Your task to perform on an android device: Open eBay Image 0: 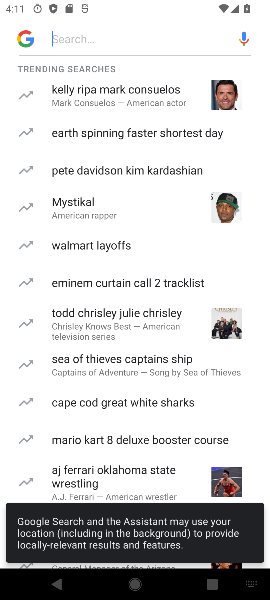
Step 0: press back button
Your task to perform on an android device: Open eBay Image 1: 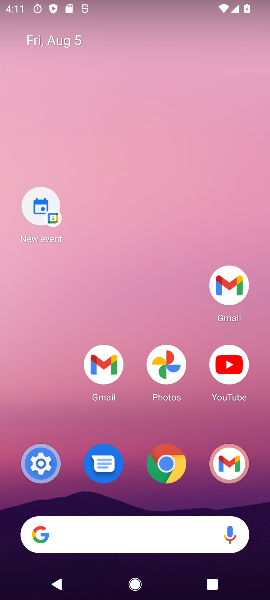
Step 1: drag from (175, 567) to (110, 225)
Your task to perform on an android device: Open eBay Image 2: 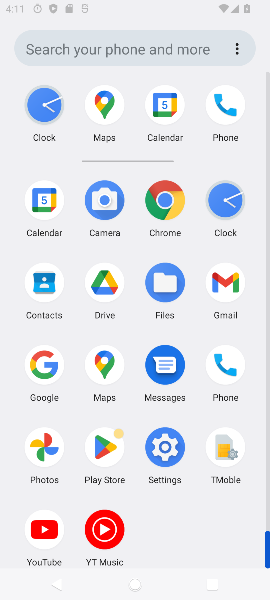
Step 2: drag from (157, 495) to (62, 145)
Your task to perform on an android device: Open eBay Image 3: 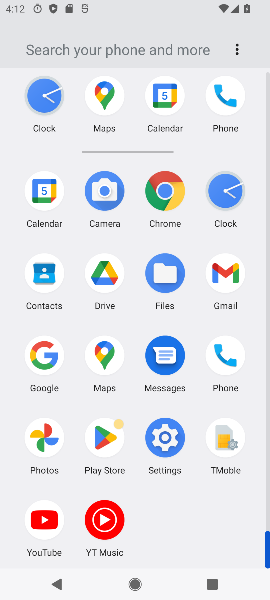
Step 3: click (159, 181)
Your task to perform on an android device: Open eBay Image 4: 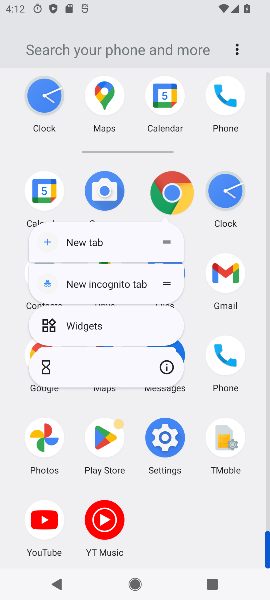
Step 4: click (166, 183)
Your task to perform on an android device: Open eBay Image 5: 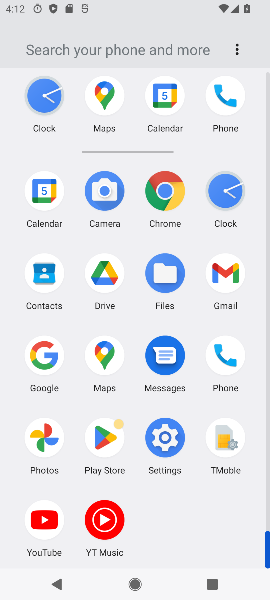
Step 5: click (166, 183)
Your task to perform on an android device: Open eBay Image 6: 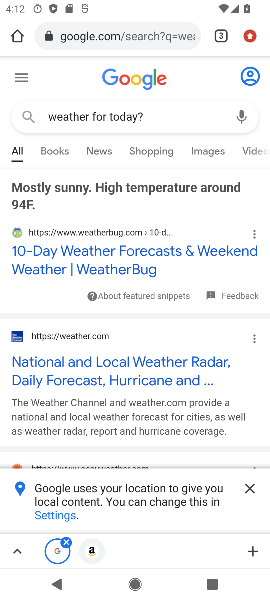
Step 6: click (166, 183)
Your task to perform on an android device: Open eBay Image 7: 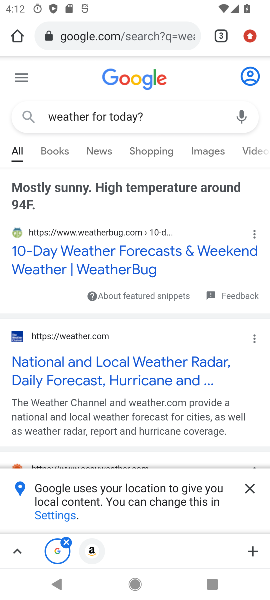
Step 7: drag from (246, 29) to (236, 425)
Your task to perform on an android device: Open eBay Image 8: 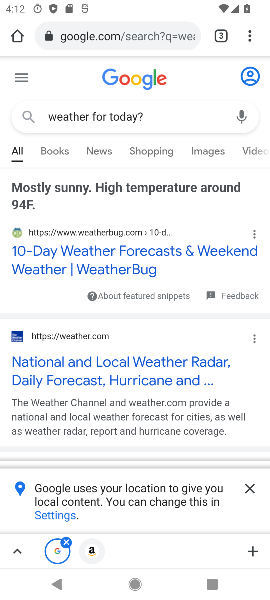
Step 8: drag from (250, 39) to (127, 122)
Your task to perform on an android device: Open eBay Image 9: 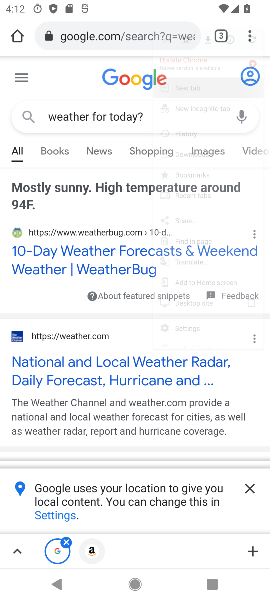
Step 9: click (130, 126)
Your task to perform on an android device: Open eBay Image 10: 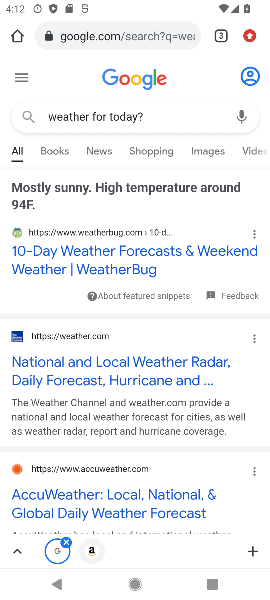
Step 10: click (134, 130)
Your task to perform on an android device: Open eBay Image 11: 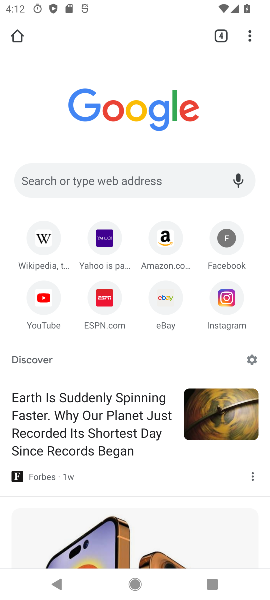
Step 11: click (167, 303)
Your task to perform on an android device: Open eBay Image 12: 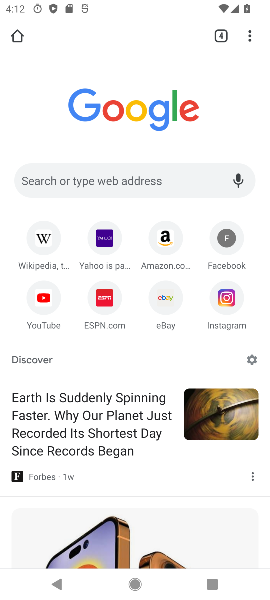
Step 12: task complete